Your task to perform on an android device: add a contact in the contacts app Image 0: 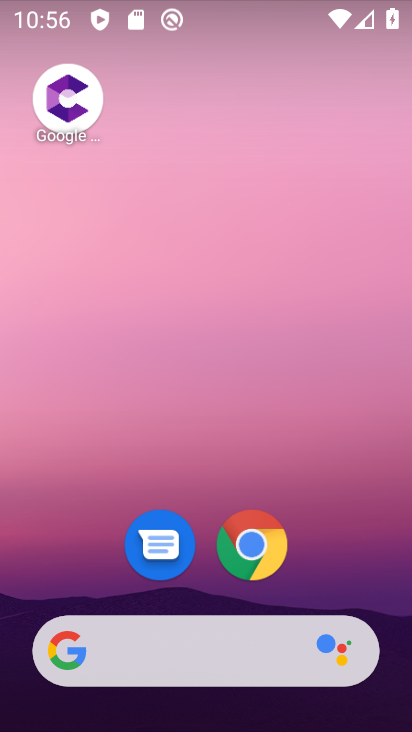
Step 0: drag from (327, 554) to (229, 60)
Your task to perform on an android device: add a contact in the contacts app Image 1: 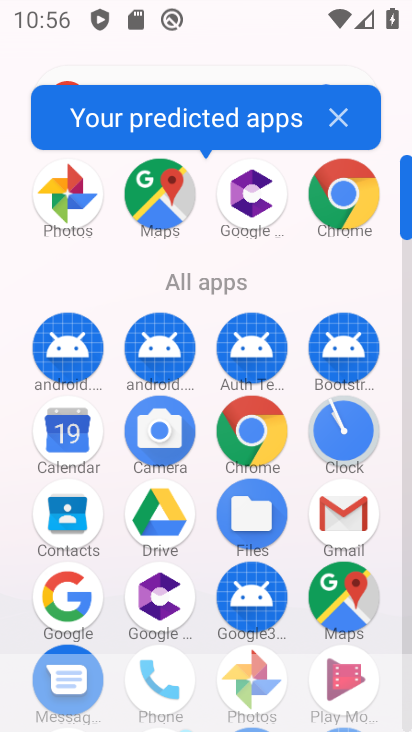
Step 1: click (76, 535)
Your task to perform on an android device: add a contact in the contacts app Image 2: 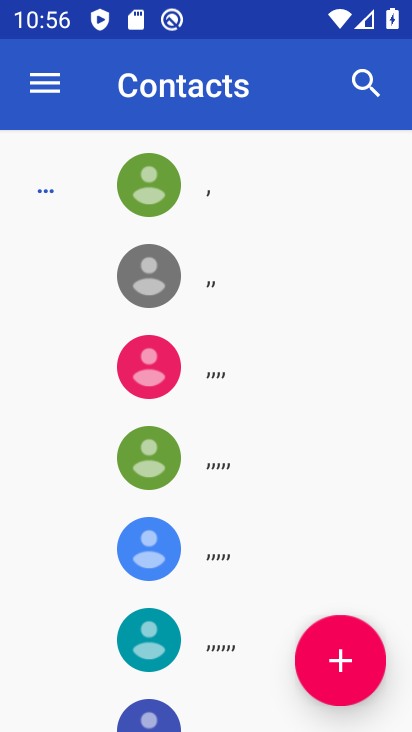
Step 2: click (340, 681)
Your task to perform on an android device: add a contact in the contacts app Image 3: 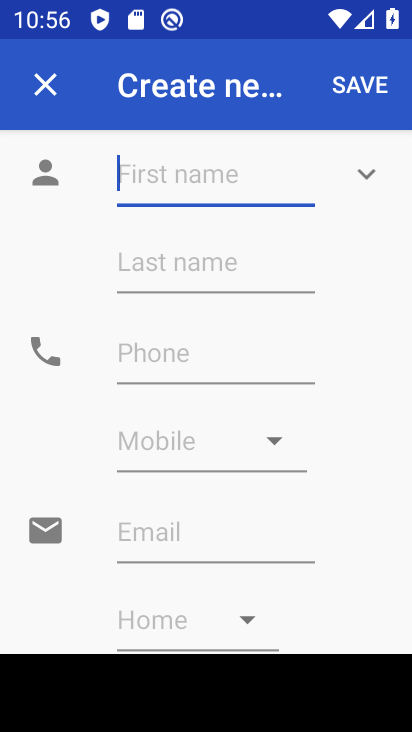
Step 3: click (162, 192)
Your task to perform on an android device: add a contact in the contacts app Image 4: 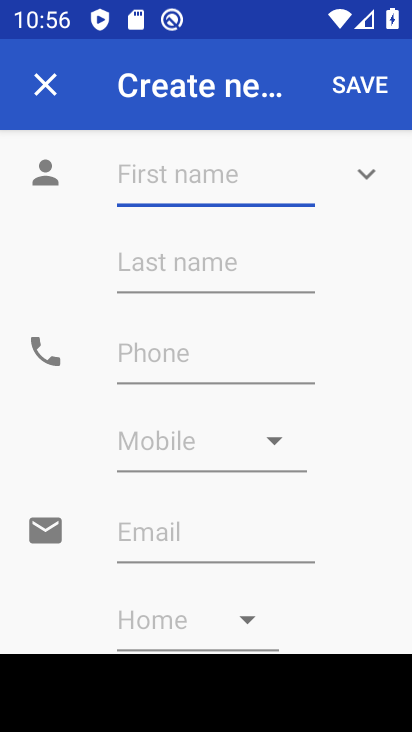
Step 4: type "Raman "
Your task to perform on an android device: add a contact in the contacts app Image 5: 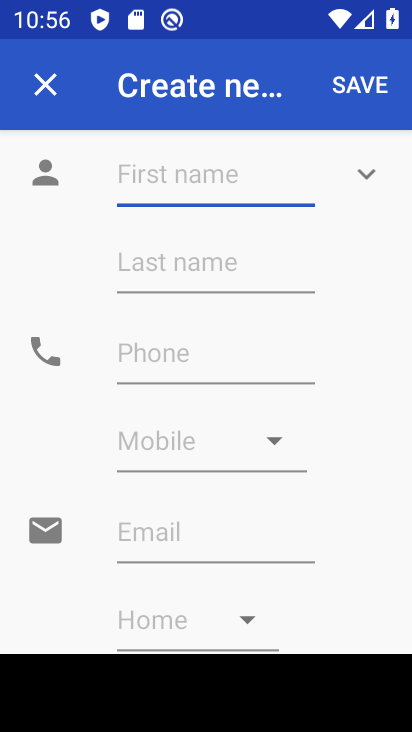
Step 5: click (257, 277)
Your task to perform on an android device: add a contact in the contacts app Image 6: 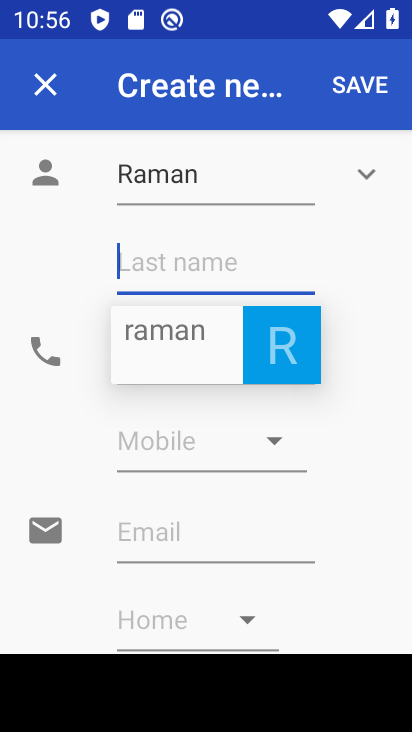
Step 6: type "Joshi"
Your task to perform on an android device: add a contact in the contacts app Image 7: 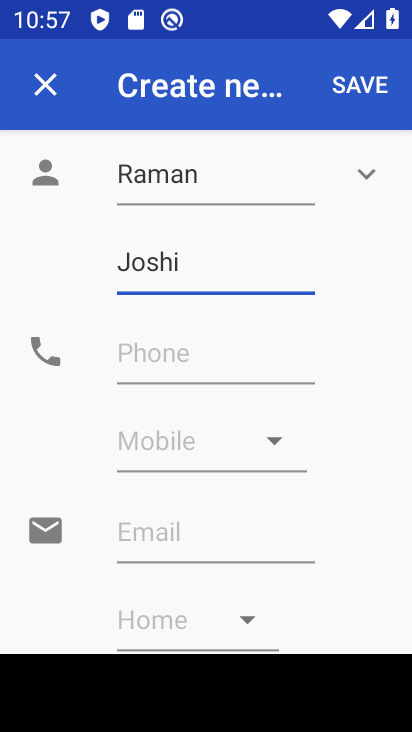
Step 7: click (201, 369)
Your task to perform on an android device: add a contact in the contacts app Image 8: 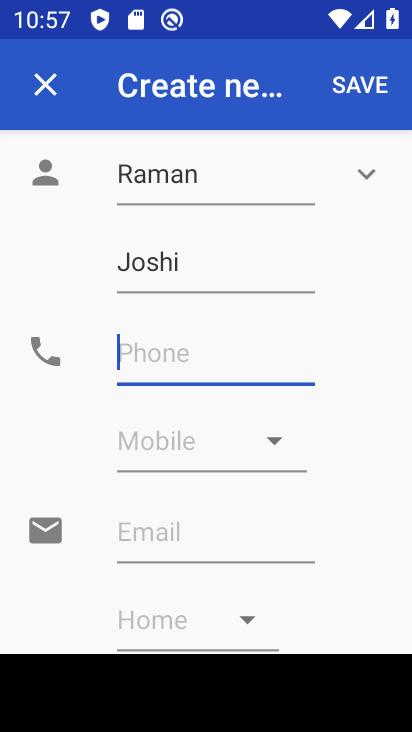
Step 8: type "9090090990"
Your task to perform on an android device: add a contact in the contacts app Image 9: 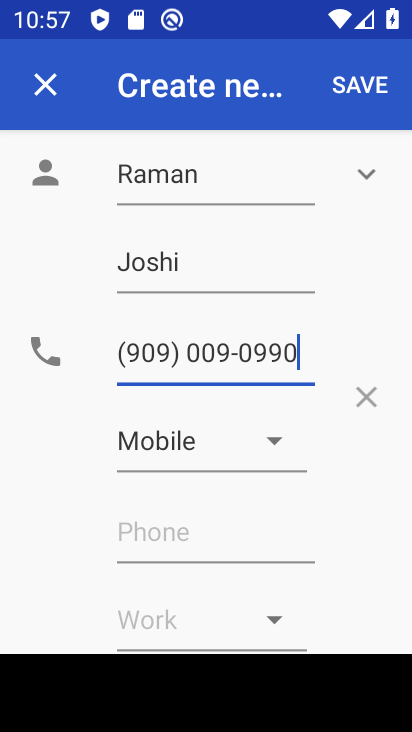
Step 9: click (356, 95)
Your task to perform on an android device: add a contact in the contacts app Image 10: 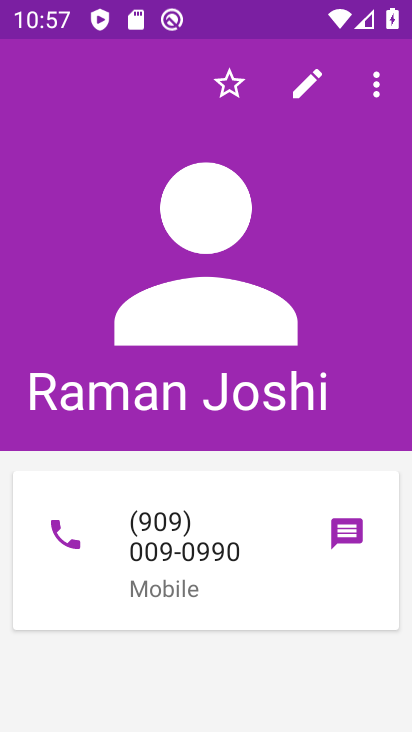
Step 10: task complete